Your task to perform on an android device: turn off notifications settings in the gmail app Image 0: 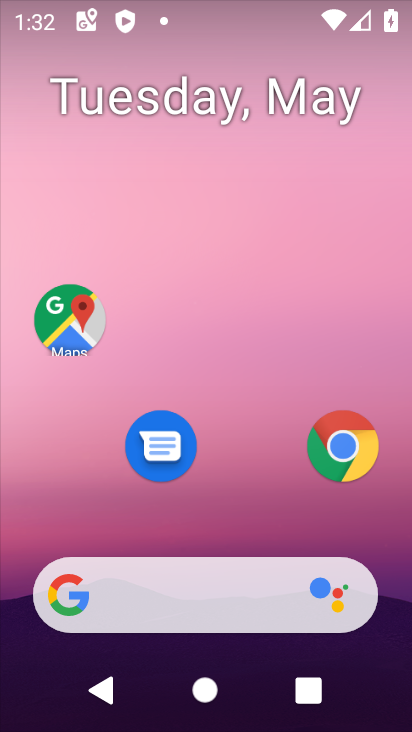
Step 0: drag from (220, 531) to (209, 17)
Your task to perform on an android device: turn off notifications settings in the gmail app Image 1: 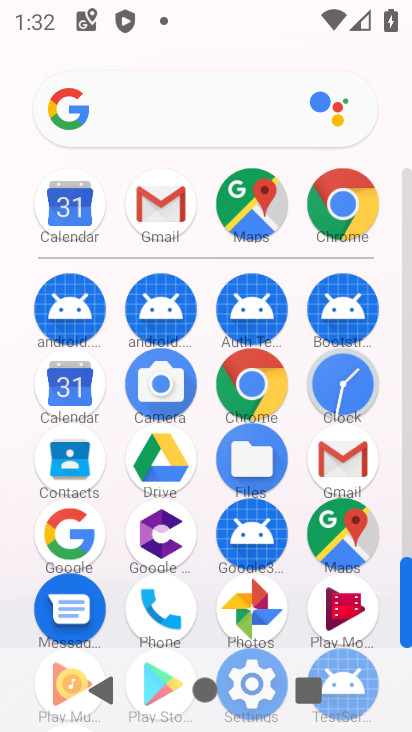
Step 1: click (347, 468)
Your task to perform on an android device: turn off notifications settings in the gmail app Image 2: 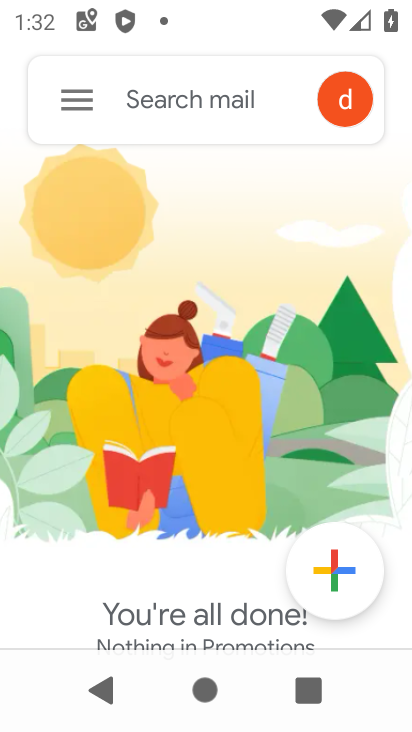
Step 2: click (81, 102)
Your task to perform on an android device: turn off notifications settings in the gmail app Image 3: 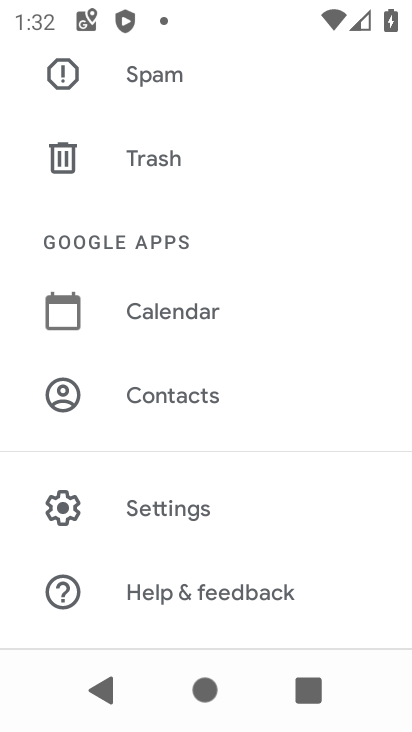
Step 3: click (169, 495)
Your task to perform on an android device: turn off notifications settings in the gmail app Image 4: 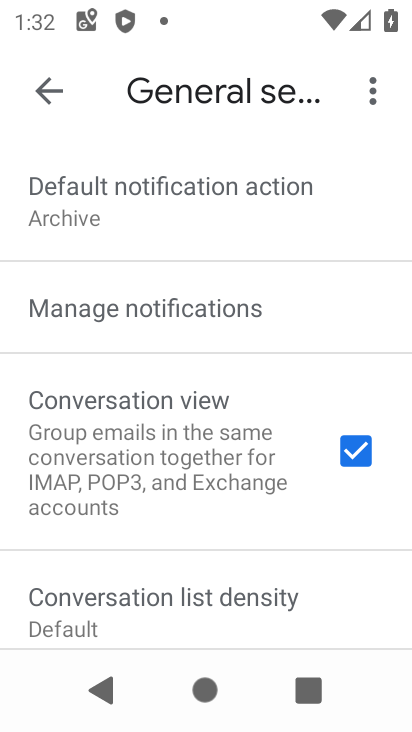
Step 4: drag from (175, 578) to (169, 458)
Your task to perform on an android device: turn off notifications settings in the gmail app Image 5: 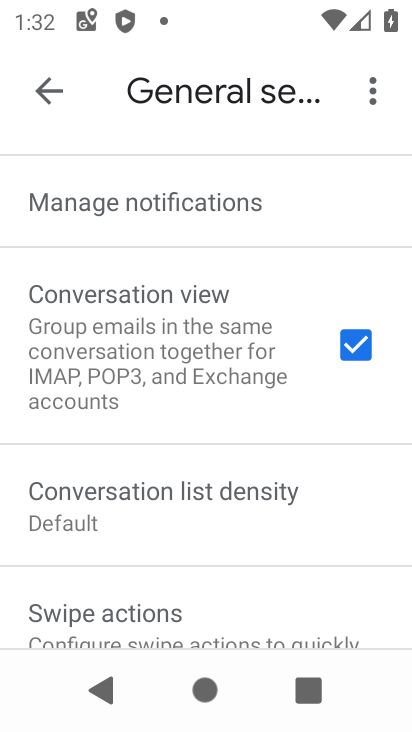
Step 5: click (158, 232)
Your task to perform on an android device: turn off notifications settings in the gmail app Image 6: 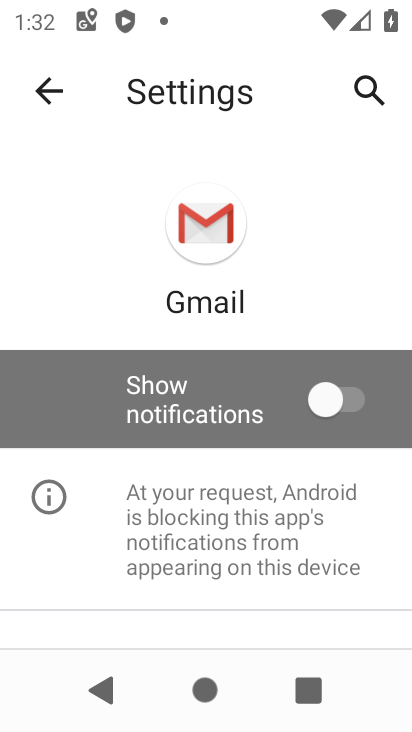
Step 6: task complete